Your task to perform on an android device: Open Reddit.com Image 0: 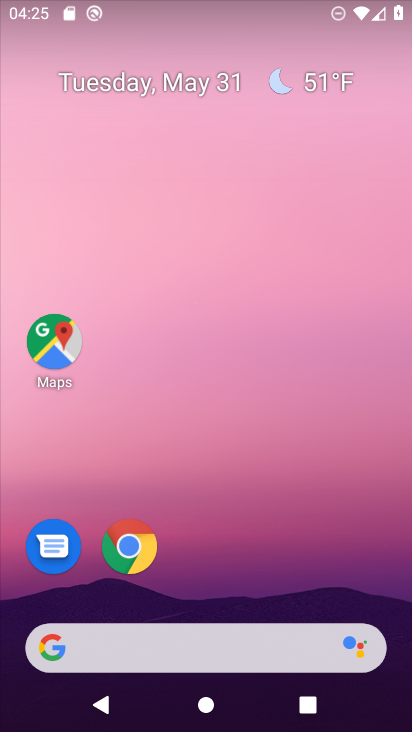
Step 0: click (122, 562)
Your task to perform on an android device: Open Reddit.com Image 1: 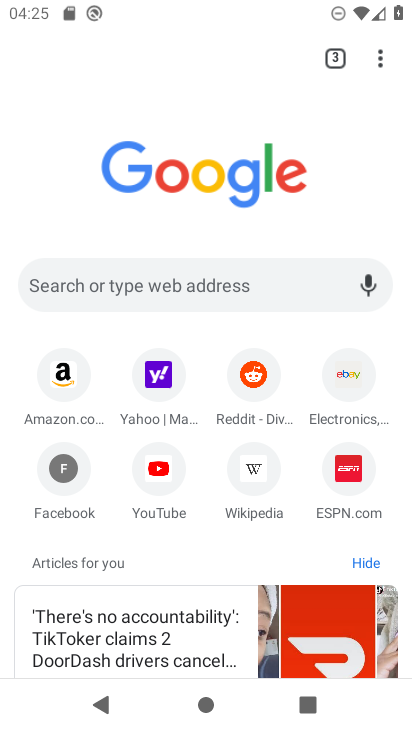
Step 1: click (242, 404)
Your task to perform on an android device: Open Reddit.com Image 2: 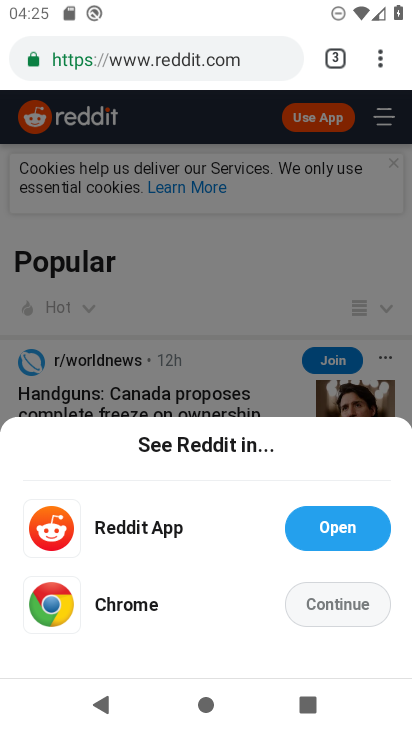
Step 2: task complete